Your task to perform on an android device: Search for vegetarian restaurants on Maps Image 0: 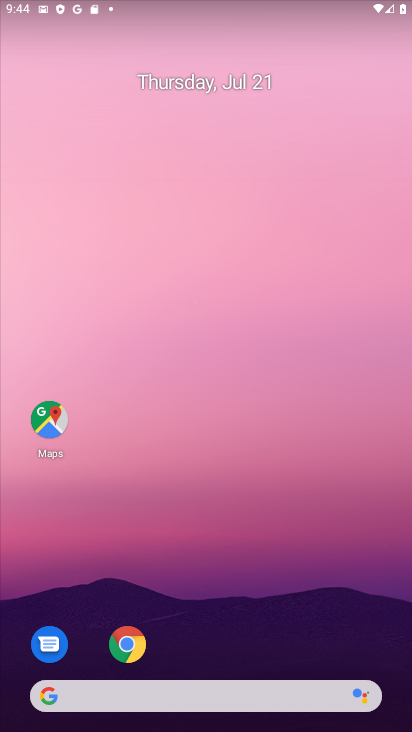
Step 0: drag from (244, 651) to (265, 179)
Your task to perform on an android device: Search for vegetarian restaurants on Maps Image 1: 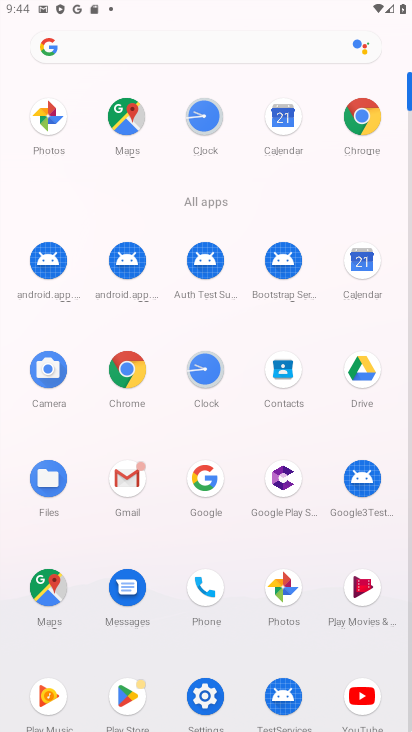
Step 1: click (41, 591)
Your task to perform on an android device: Search for vegetarian restaurants on Maps Image 2: 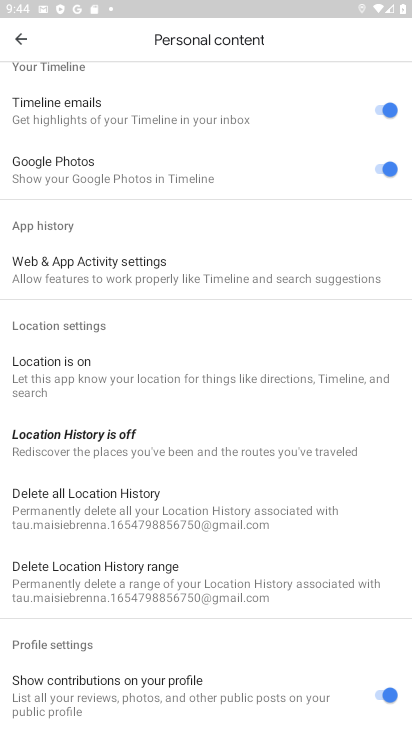
Step 2: click (10, 44)
Your task to perform on an android device: Search for vegetarian restaurants on Maps Image 3: 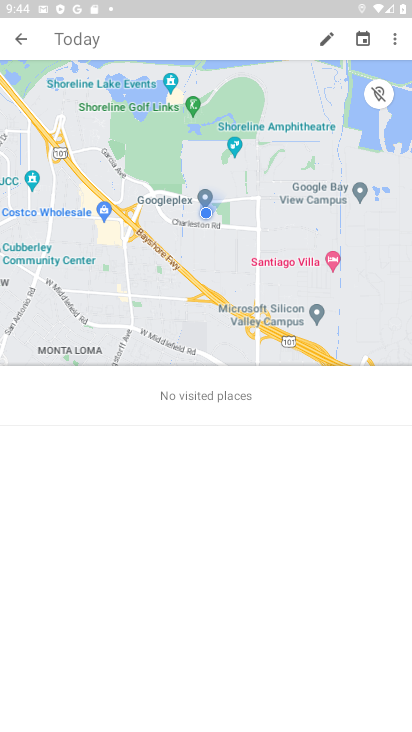
Step 3: click (7, 40)
Your task to perform on an android device: Search for vegetarian restaurants on Maps Image 4: 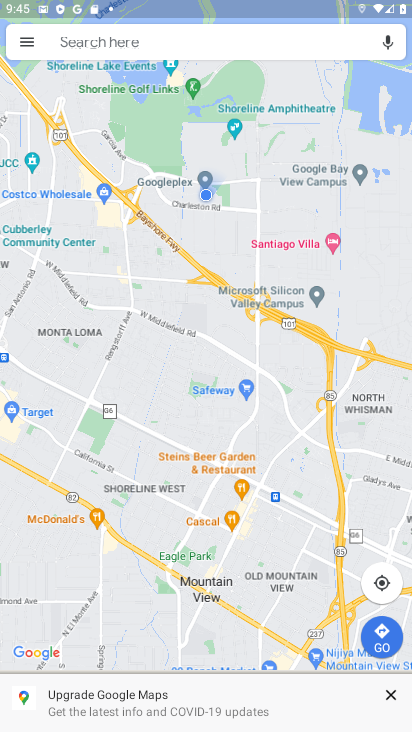
Step 4: click (109, 42)
Your task to perform on an android device: Search for vegetarian restaurants on Maps Image 5: 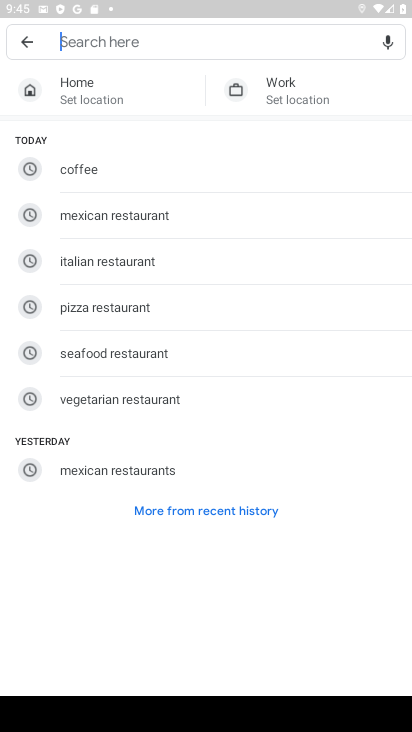
Step 5: click (111, 396)
Your task to perform on an android device: Search for vegetarian restaurants on Maps Image 6: 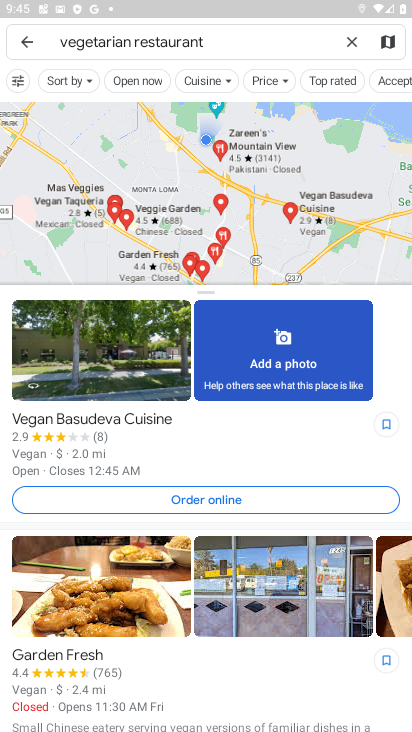
Step 6: task complete